Your task to perform on an android device: Show me popular games on the Play Store Image 0: 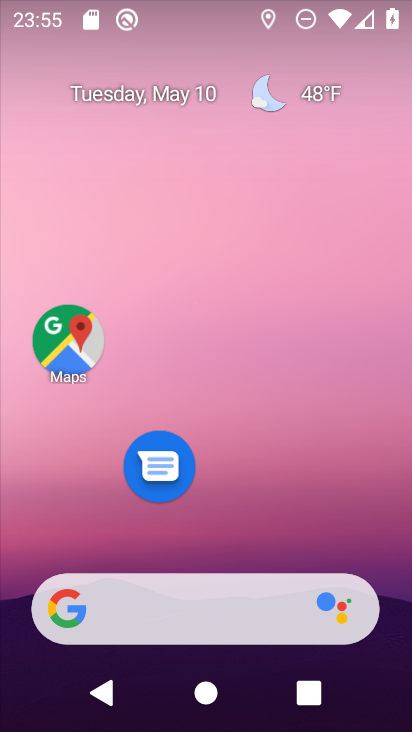
Step 0: drag from (237, 538) to (262, 8)
Your task to perform on an android device: Show me popular games on the Play Store Image 1: 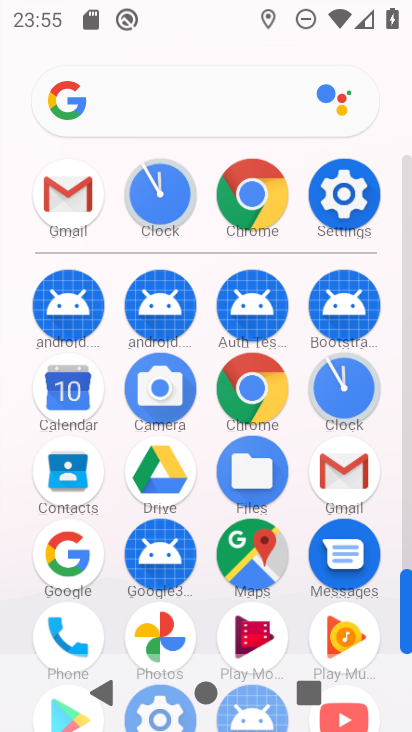
Step 1: drag from (199, 604) to (243, 200)
Your task to perform on an android device: Show me popular games on the Play Store Image 2: 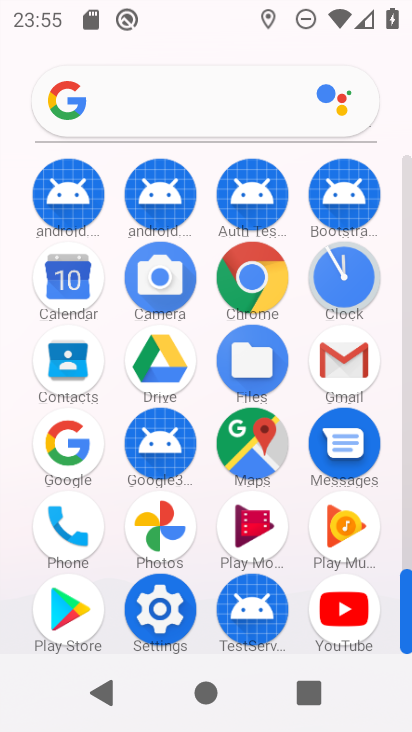
Step 2: click (56, 622)
Your task to perform on an android device: Show me popular games on the Play Store Image 3: 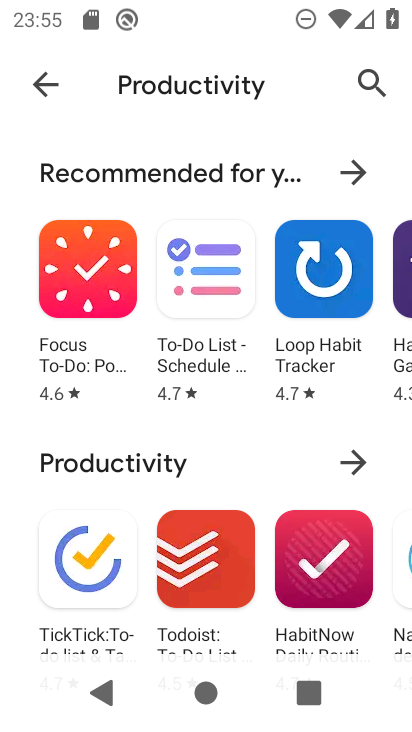
Step 3: click (52, 72)
Your task to perform on an android device: Show me popular games on the Play Store Image 4: 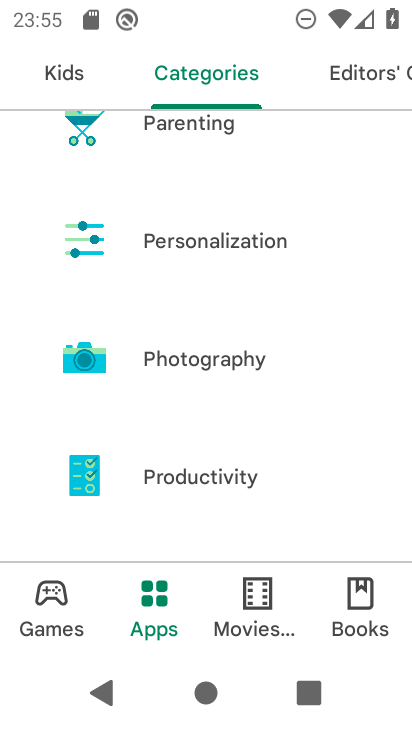
Step 4: click (60, 606)
Your task to perform on an android device: Show me popular games on the Play Store Image 5: 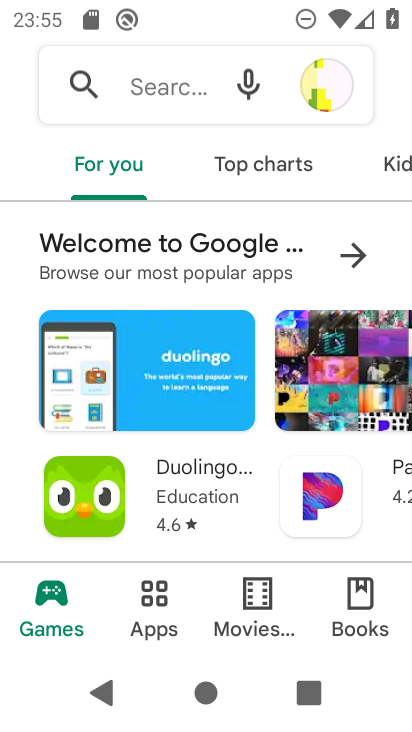
Step 5: click (284, 161)
Your task to perform on an android device: Show me popular games on the Play Store Image 6: 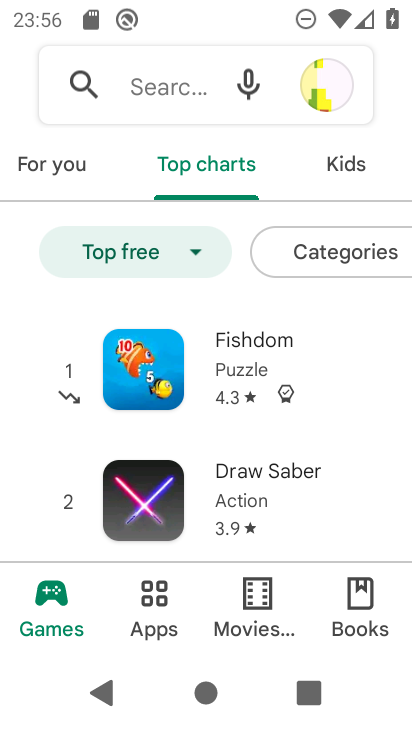
Step 6: task complete